Your task to perform on an android device: turn pop-ups off in chrome Image 0: 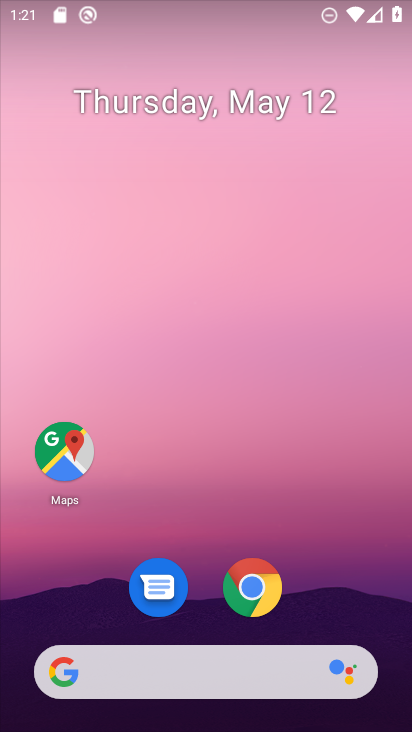
Step 0: click (252, 590)
Your task to perform on an android device: turn pop-ups off in chrome Image 1: 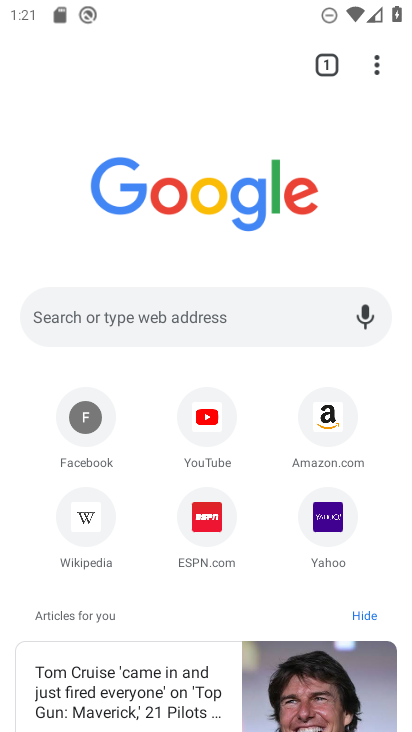
Step 1: click (374, 69)
Your task to perform on an android device: turn pop-ups off in chrome Image 2: 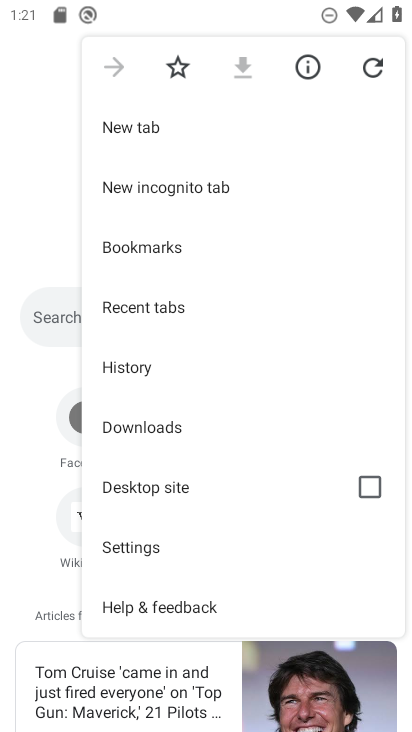
Step 2: click (141, 546)
Your task to perform on an android device: turn pop-ups off in chrome Image 3: 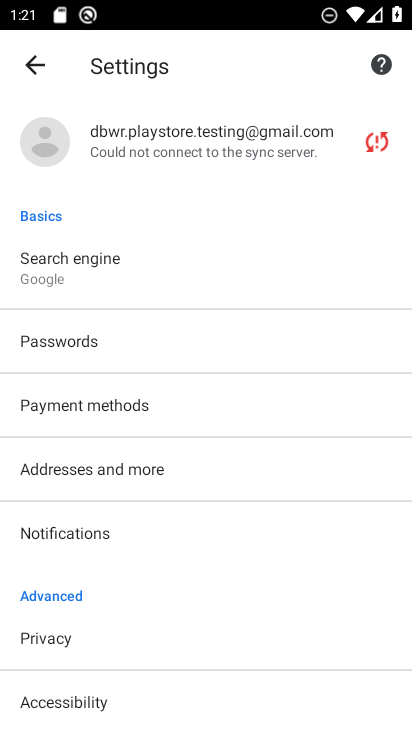
Step 3: drag from (158, 602) to (189, 363)
Your task to perform on an android device: turn pop-ups off in chrome Image 4: 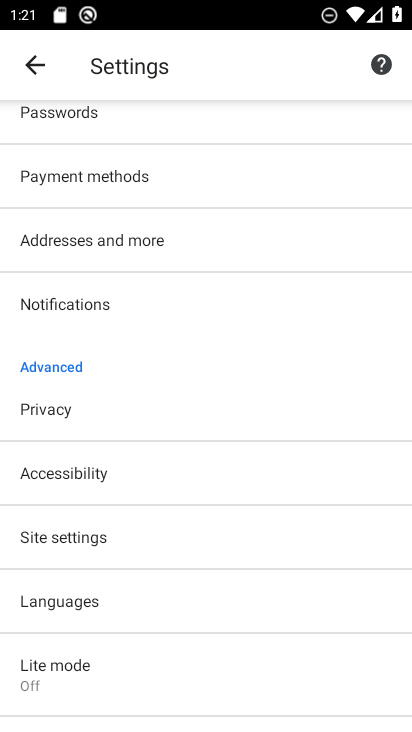
Step 4: drag from (108, 571) to (176, 429)
Your task to perform on an android device: turn pop-ups off in chrome Image 5: 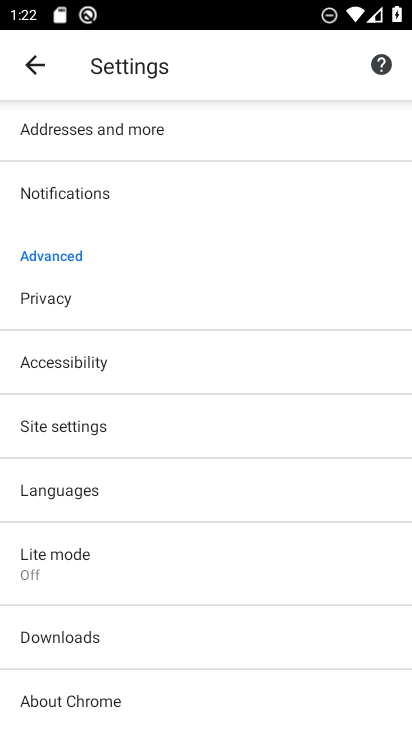
Step 5: click (87, 426)
Your task to perform on an android device: turn pop-ups off in chrome Image 6: 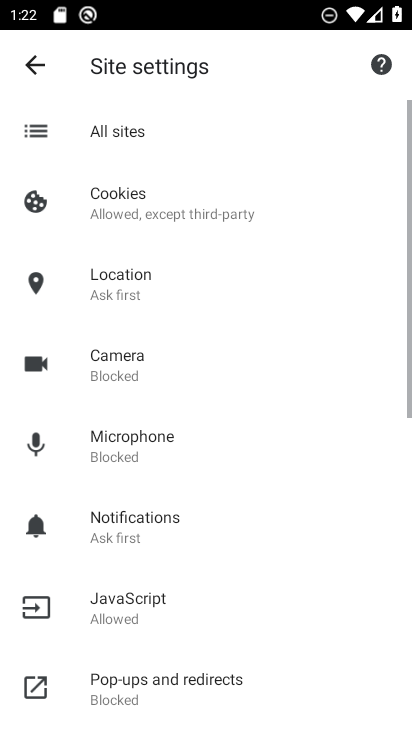
Step 6: drag from (184, 618) to (213, 422)
Your task to perform on an android device: turn pop-ups off in chrome Image 7: 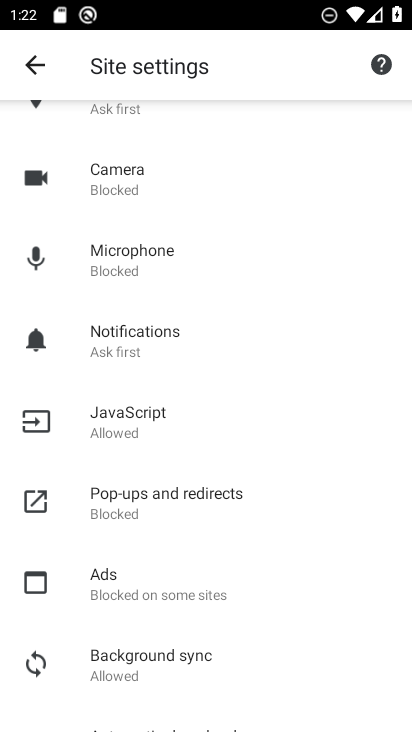
Step 7: click (176, 485)
Your task to perform on an android device: turn pop-ups off in chrome Image 8: 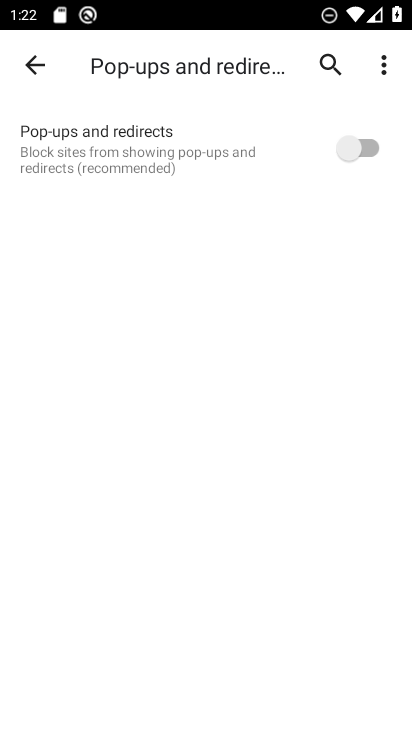
Step 8: task complete